Your task to perform on an android device: Open the map Image 0: 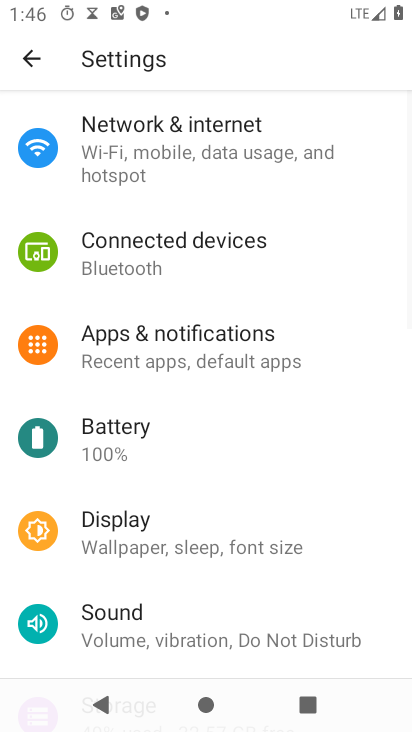
Step 0: press home button
Your task to perform on an android device: Open the map Image 1: 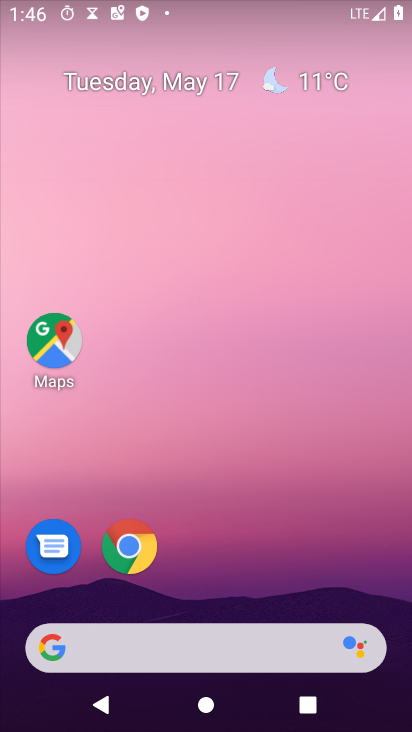
Step 1: click (52, 348)
Your task to perform on an android device: Open the map Image 2: 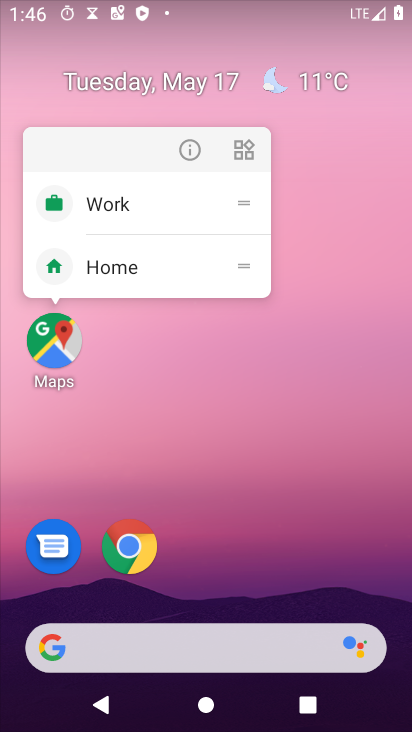
Step 2: click (62, 356)
Your task to perform on an android device: Open the map Image 3: 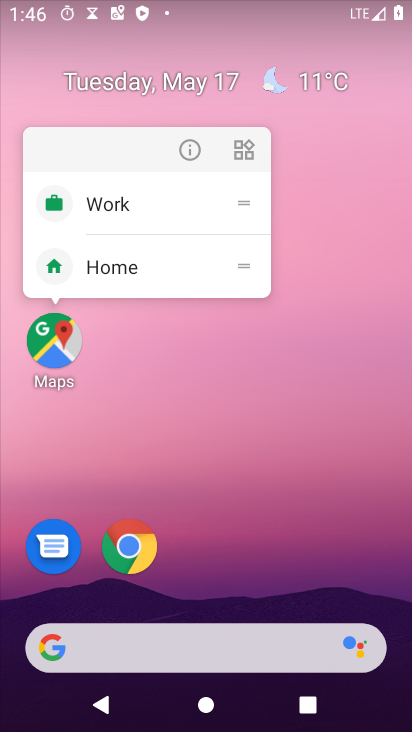
Step 3: click (35, 350)
Your task to perform on an android device: Open the map Image 4: 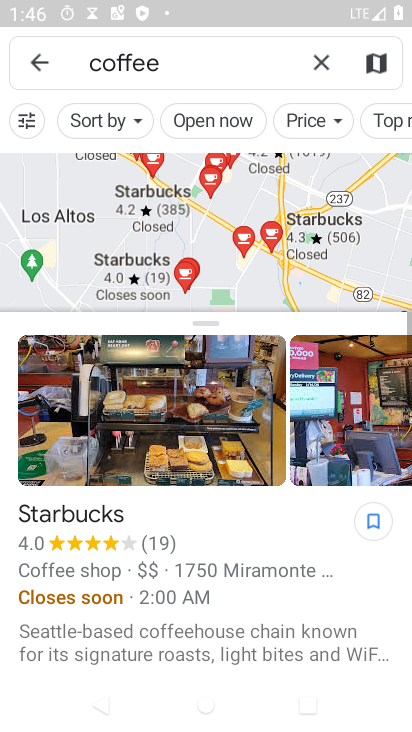
Step 4: click (43, 63)
Your task to perform on an android device: Open the map Image 5: 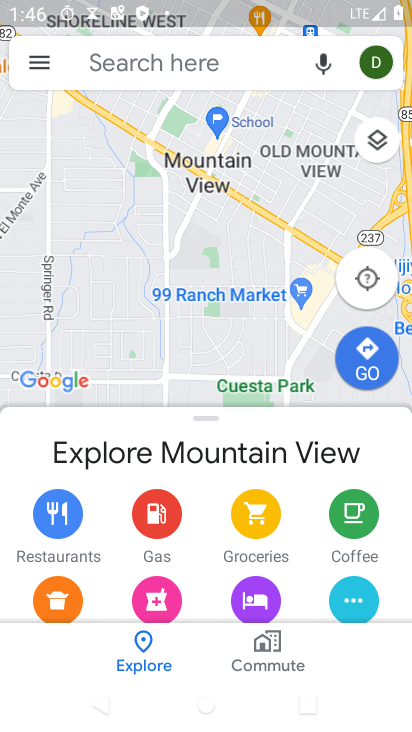
Step 5: task complete